Your task to perform on an android device: Go to Maps Image 0: 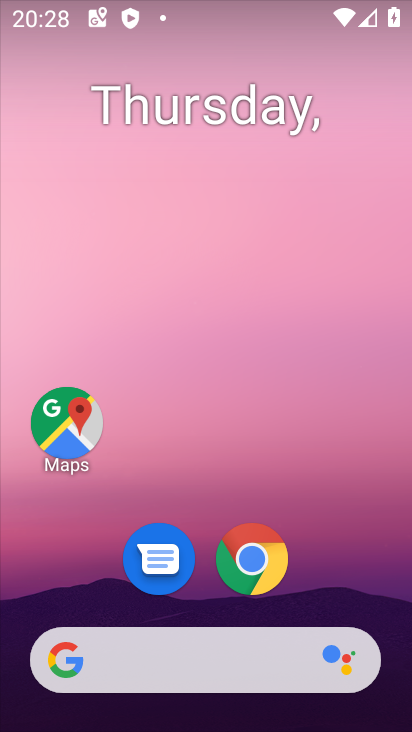
Step 0: click (63, 330)
Your task to perform on an android device: Go to Maps Image 1: 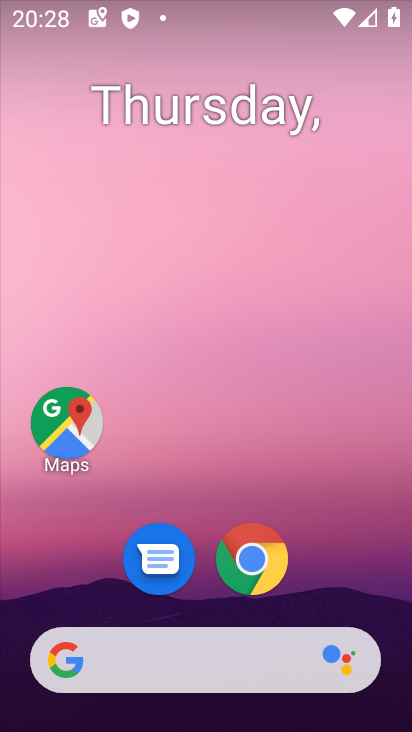
Step 1: click (78, 443)
Your task to perform on an android device: Go to Maps Image 2: 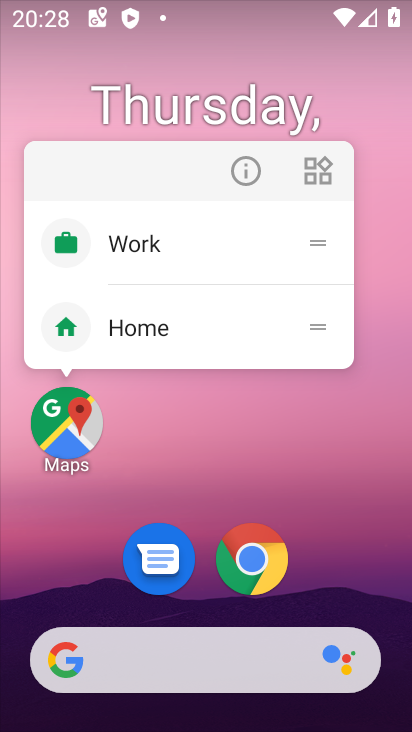
Step 2: click (63, 457)
Your task to perform on an android device: Go to Maps Image 3: 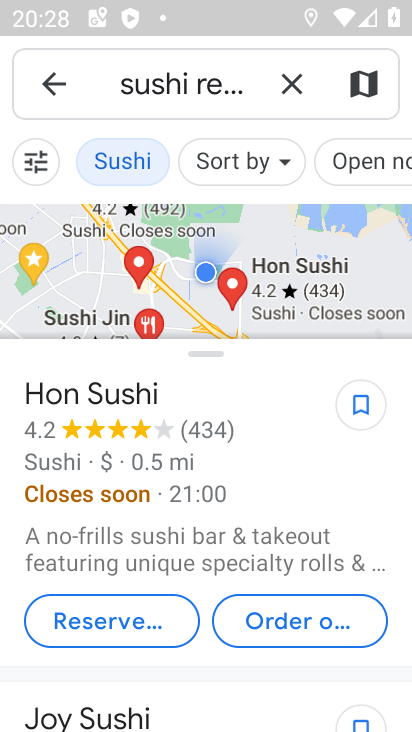
Step 3: task complete